Your task to perform on an android device: Search for the best vacuum on Amazon. Image 0: 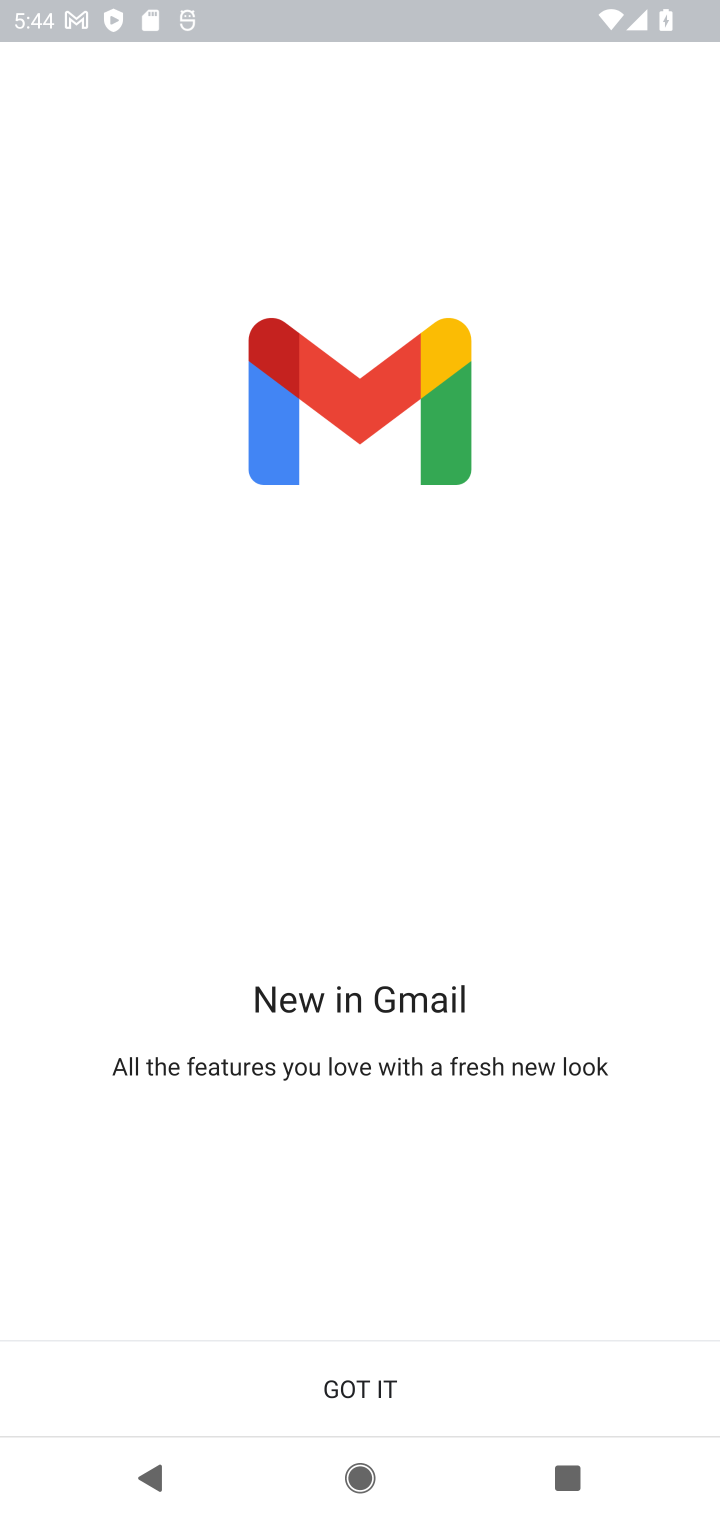
Step 0: press home button
Your task to perform on an android device: Search for the best vacuum on Amazon. Image 1: 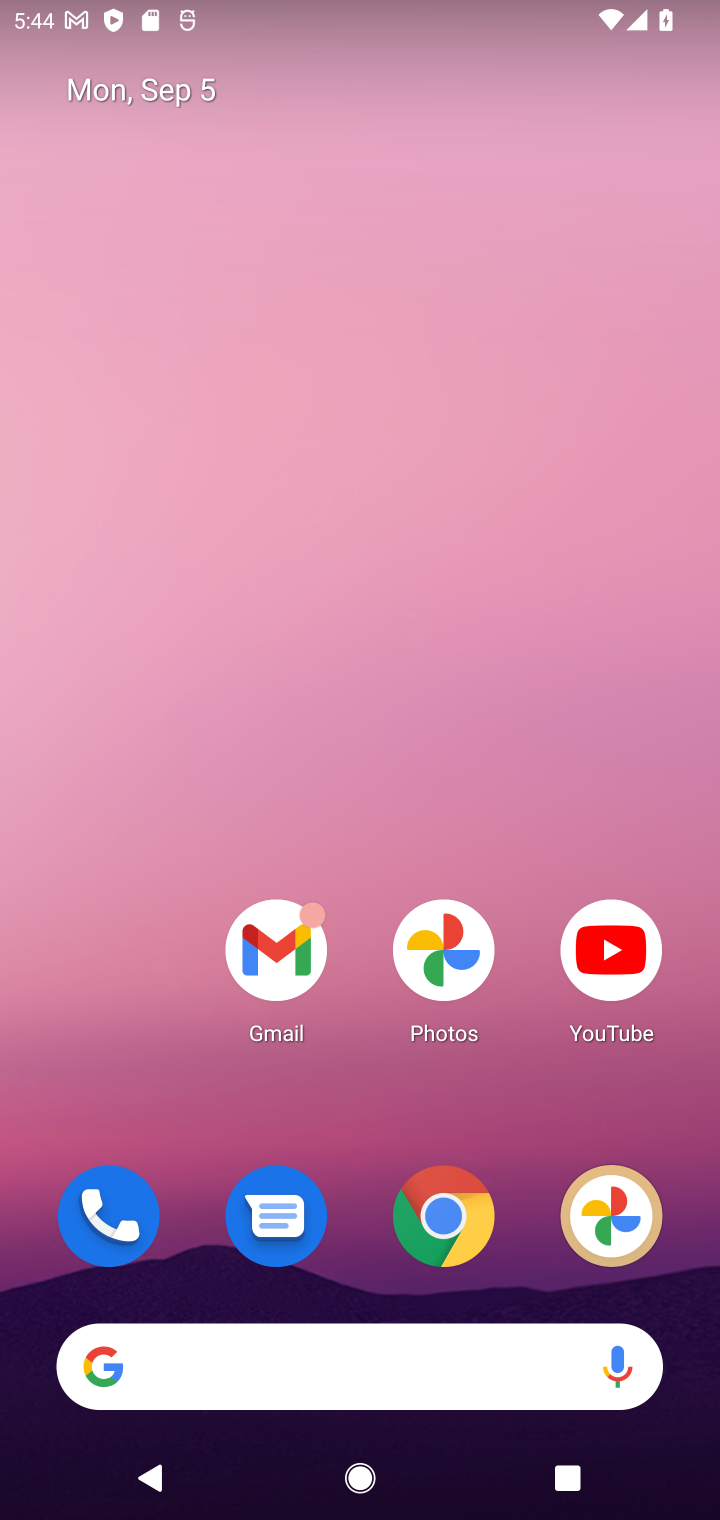
Step 1: click (463, 1200)
Your task to perform on an android device: Search for the best vacuum on Amazon. Image 2: 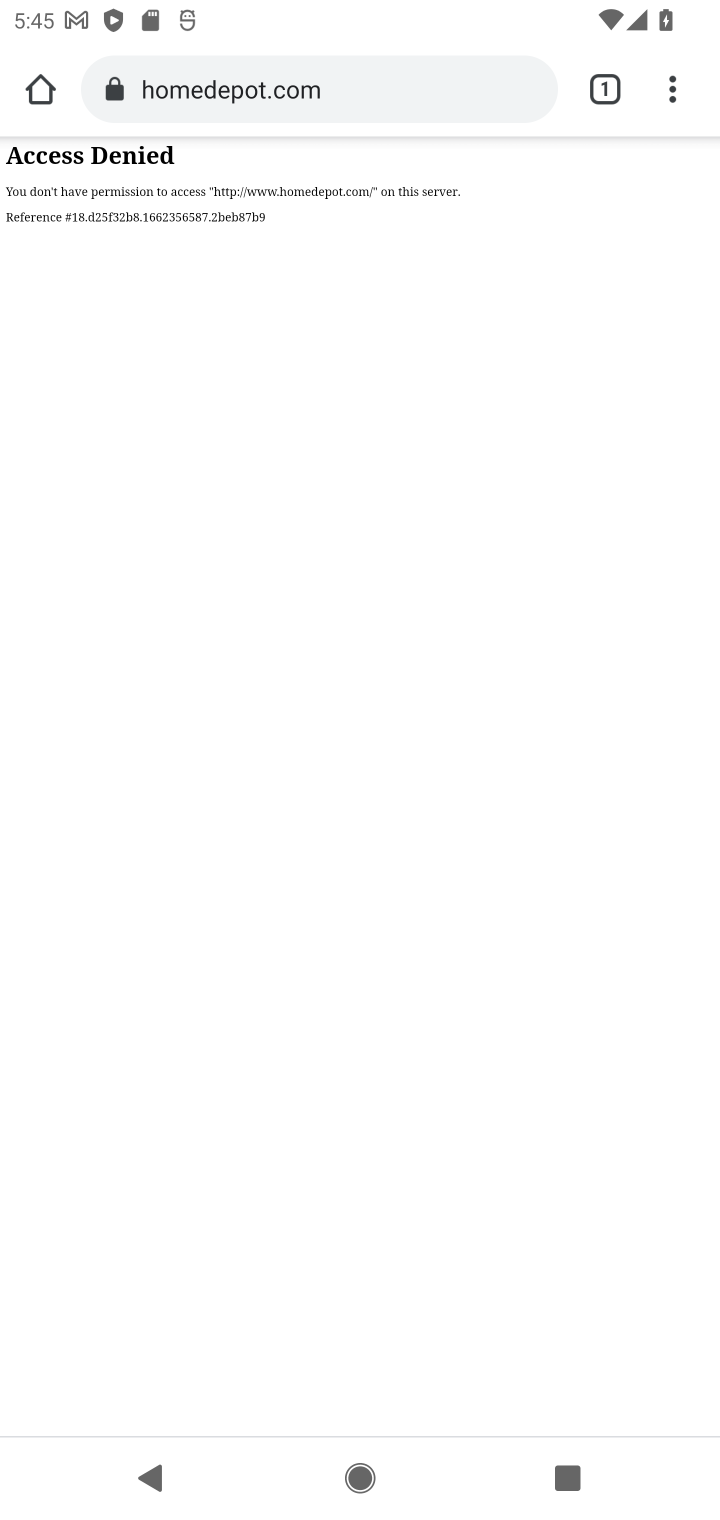
Step 2: click (340, 92)
Your task to perform on an android device: Search for the best vacuum on Amazon. Image 3: 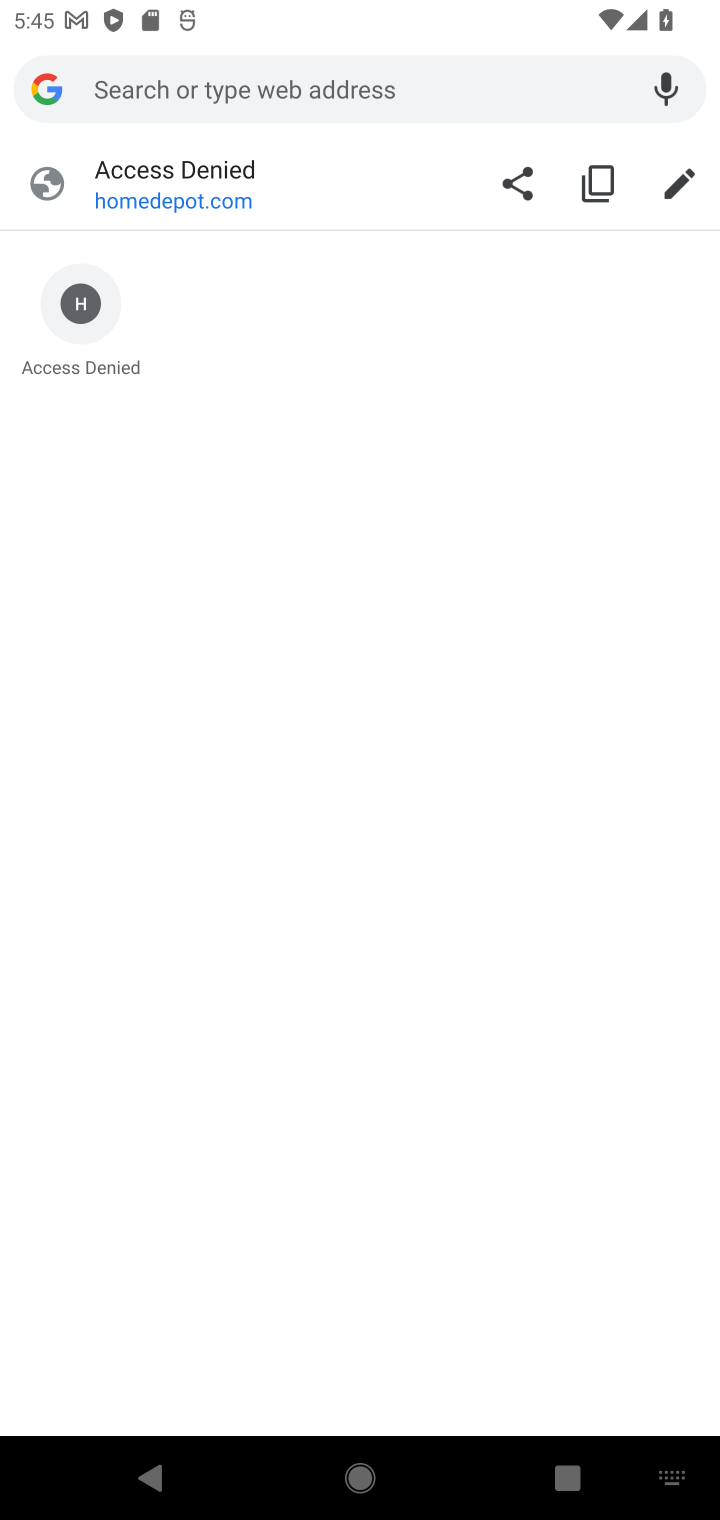
Step 3: type "amazon"
Your task to perform on an android device: Search for the best vacuum on Amazon. Image 4: 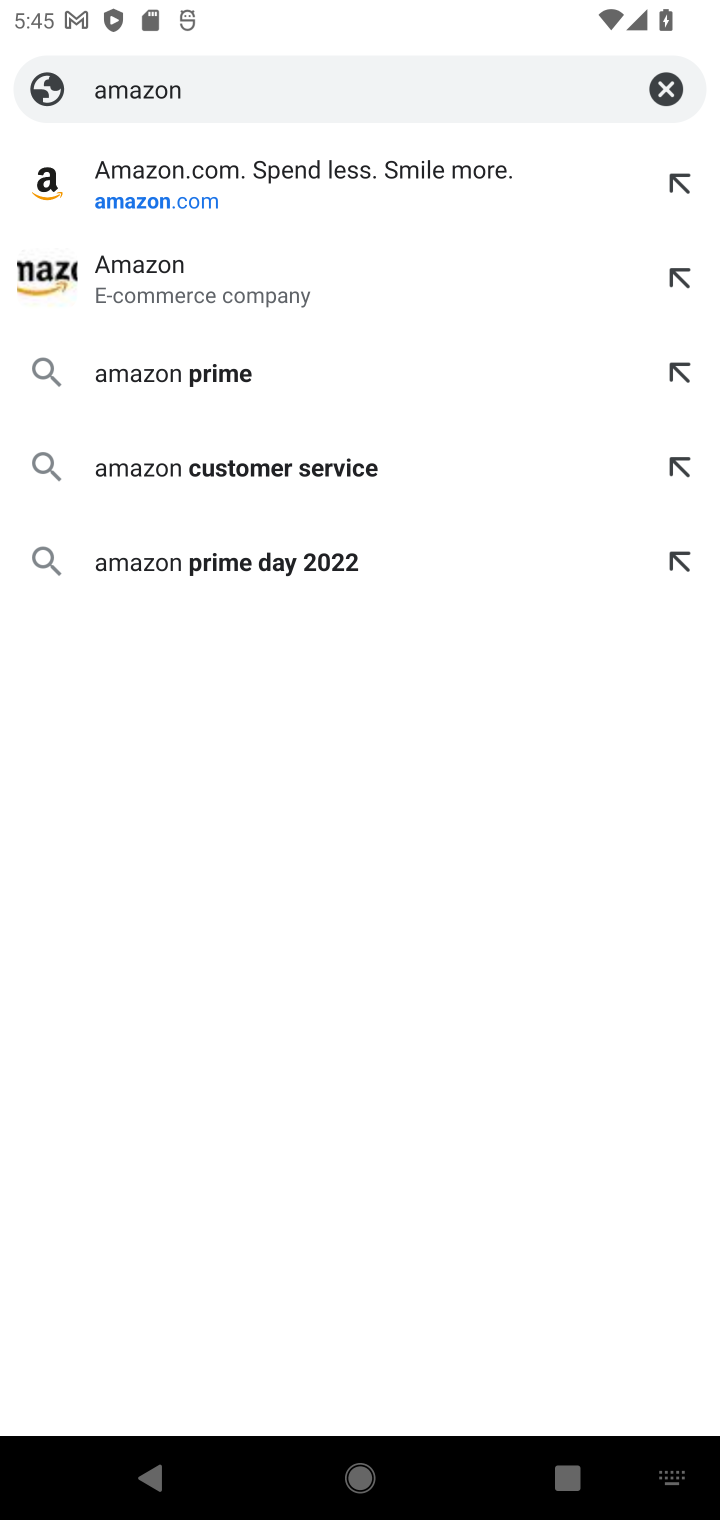
Step 4: click (395, 167)
Your task to perform on an android device: Search for the best vacuum on Amazon. Image 5: 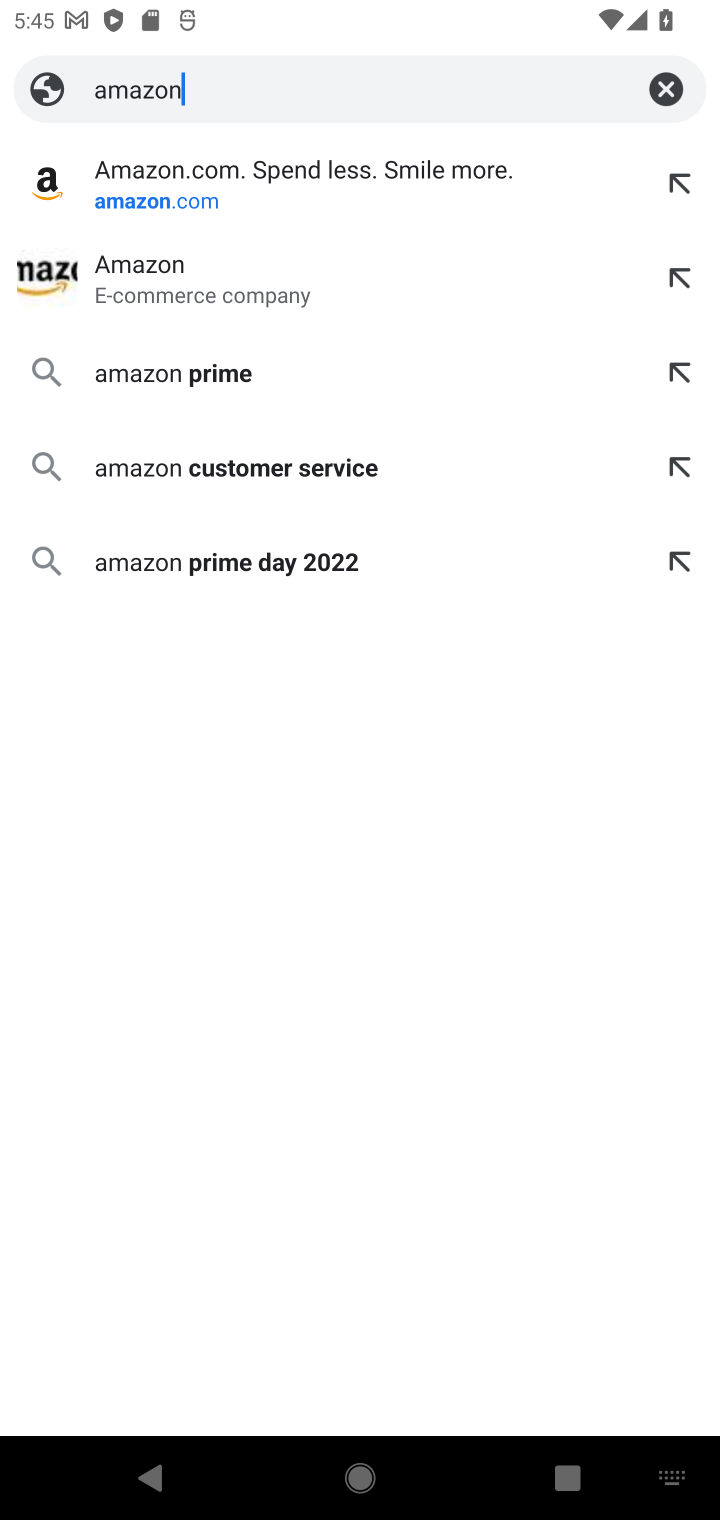
Step 5: click (204, 197)
Your task to perform on an android device: Search for the best vacuum on Amazon. Image 6: 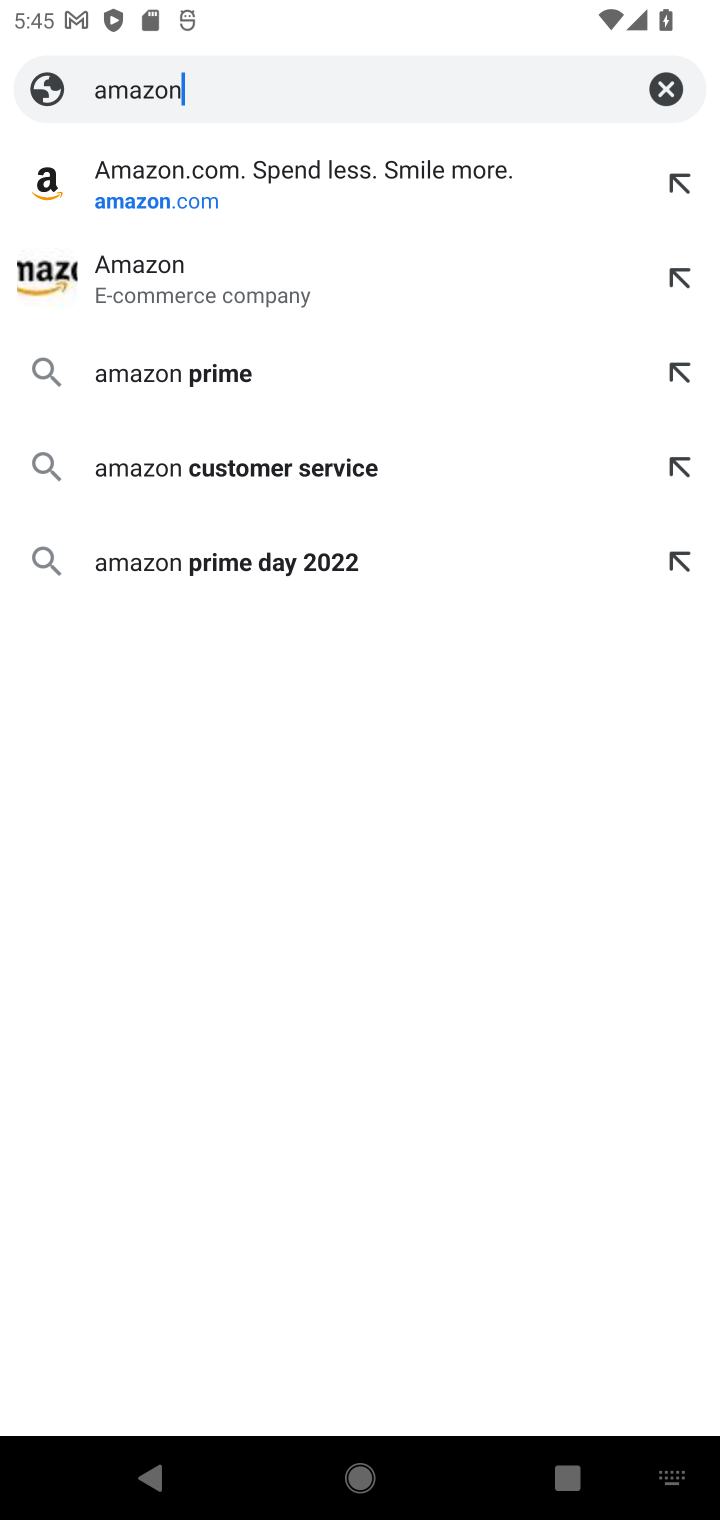
Step 6: click (258, 199)
Your task to perform on an android device: Search for the best vacuum on Amazon. Image 7: 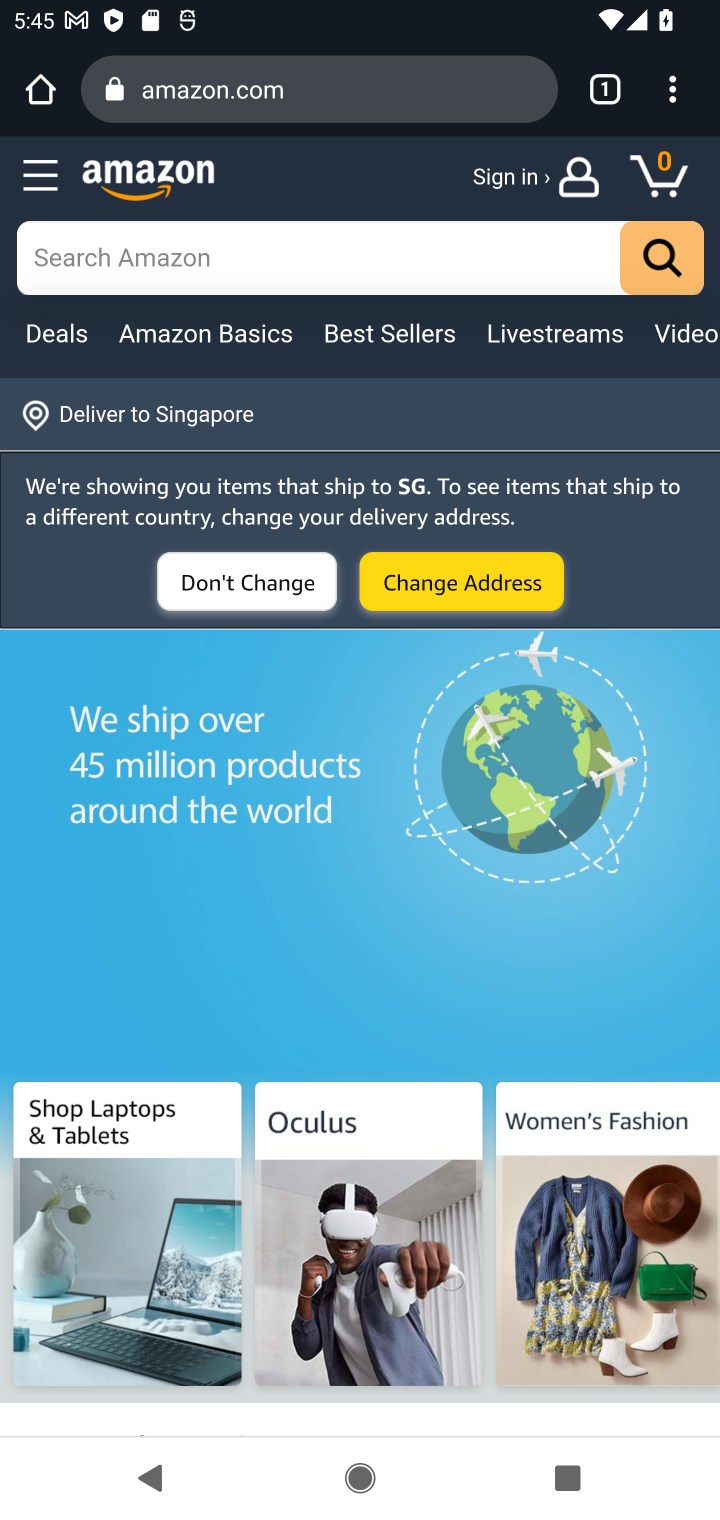
Step 7: click (410, 259)
Your task to perform on an android device: Search for the best vacuum on Amazon. Image 8: 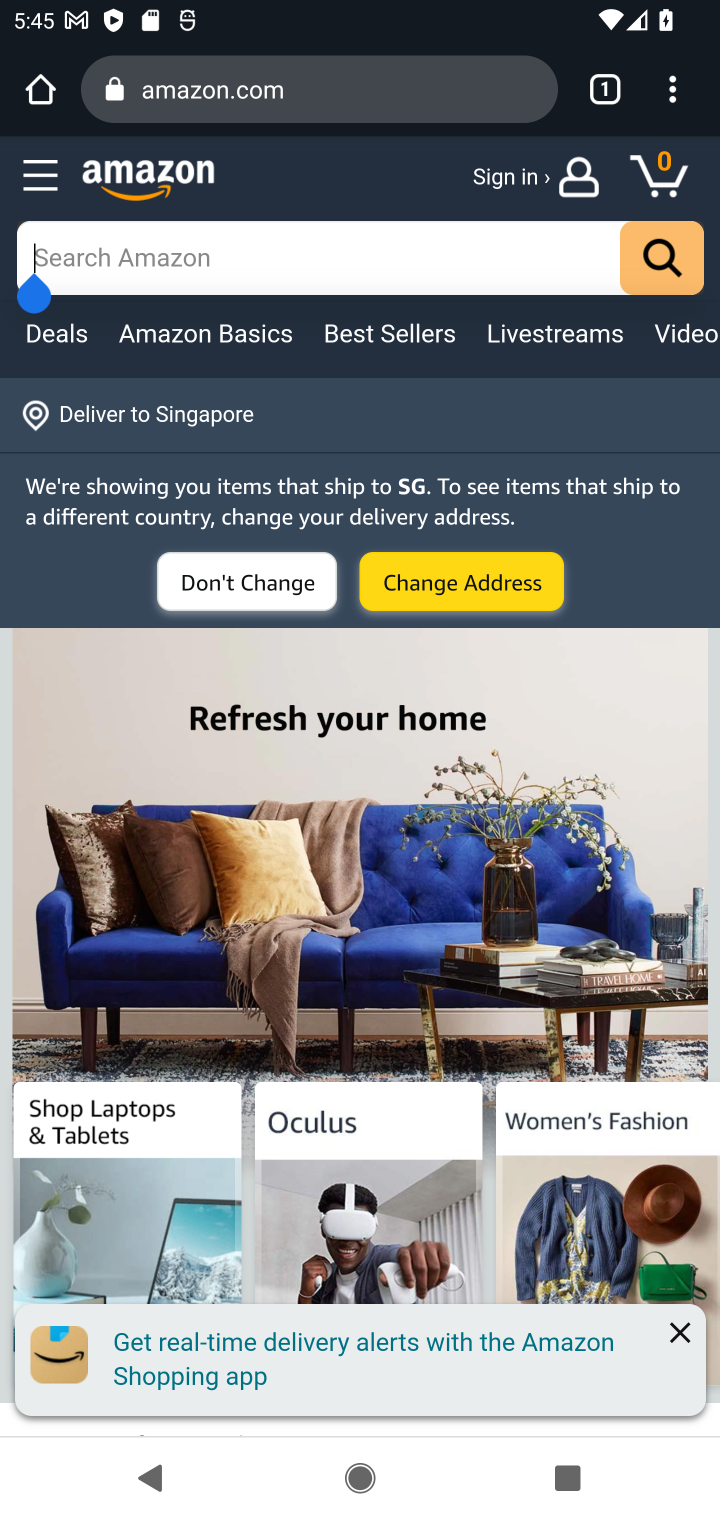
Step 8: type "best vaccum"
Your task to perform on an android device: Search for the best vacuum on Amazon. Image 9: 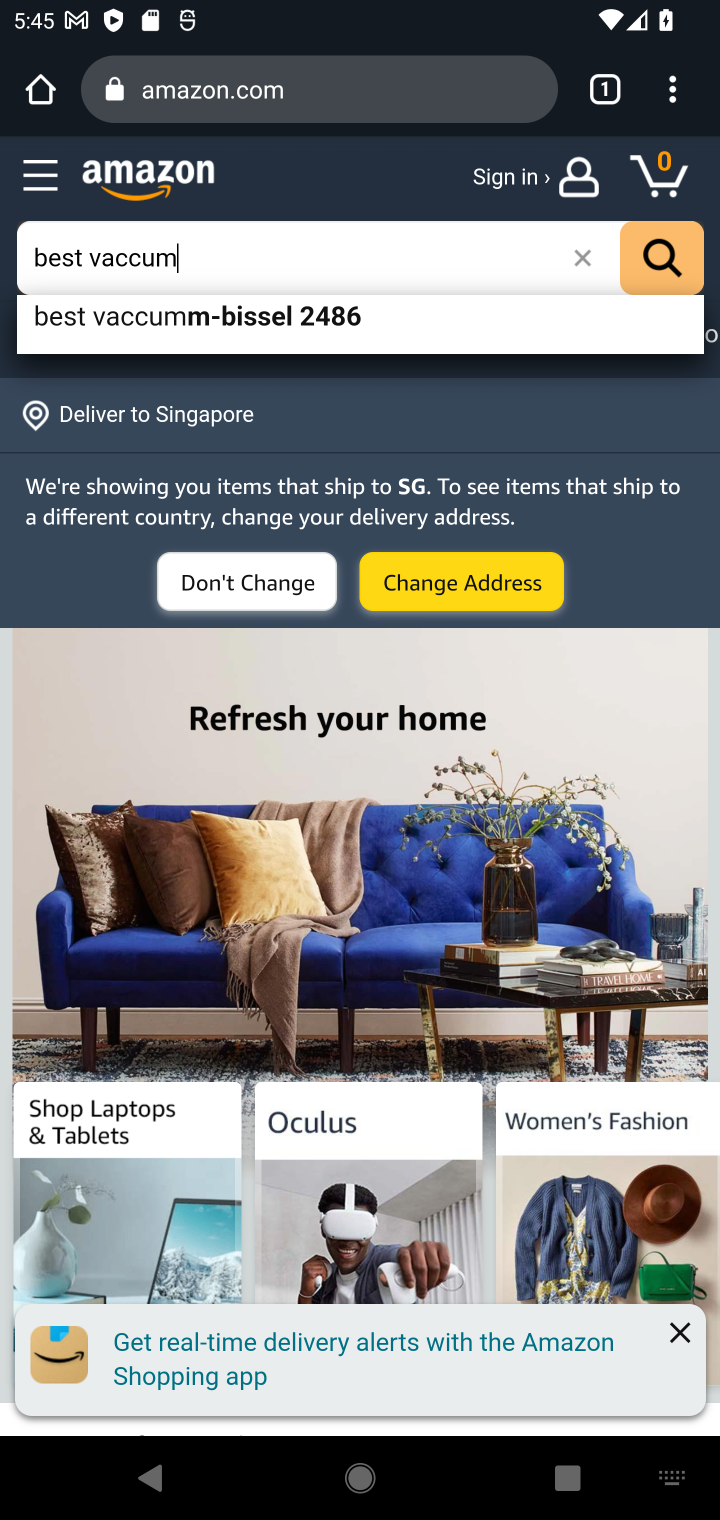
Step 9: click (677, 250)
Your task to perform on an android device: Search for the best vacuum on Amazon. Image 10: 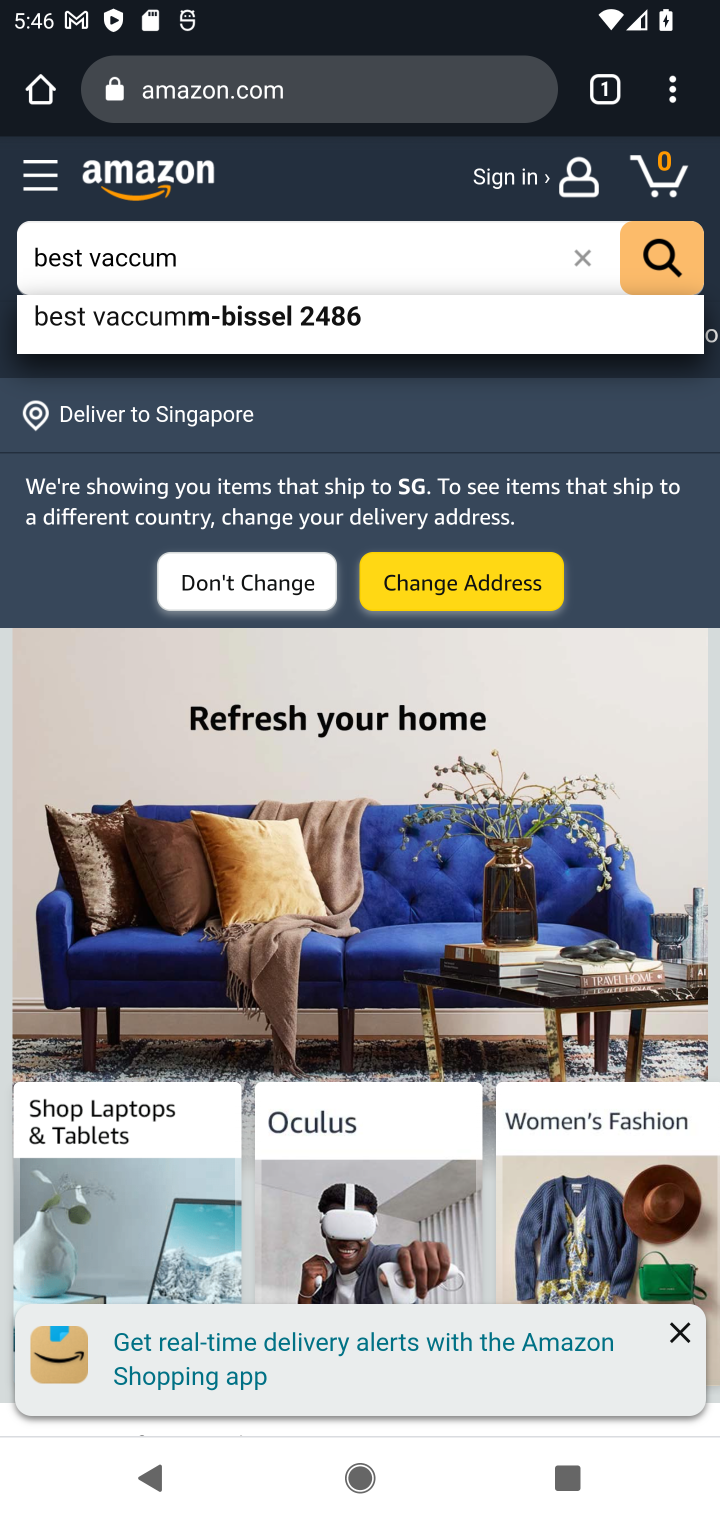
Step 10: click (677, 250)
Your task to perform on an android device: Search for the best vacuum on Amazon. Image 11: 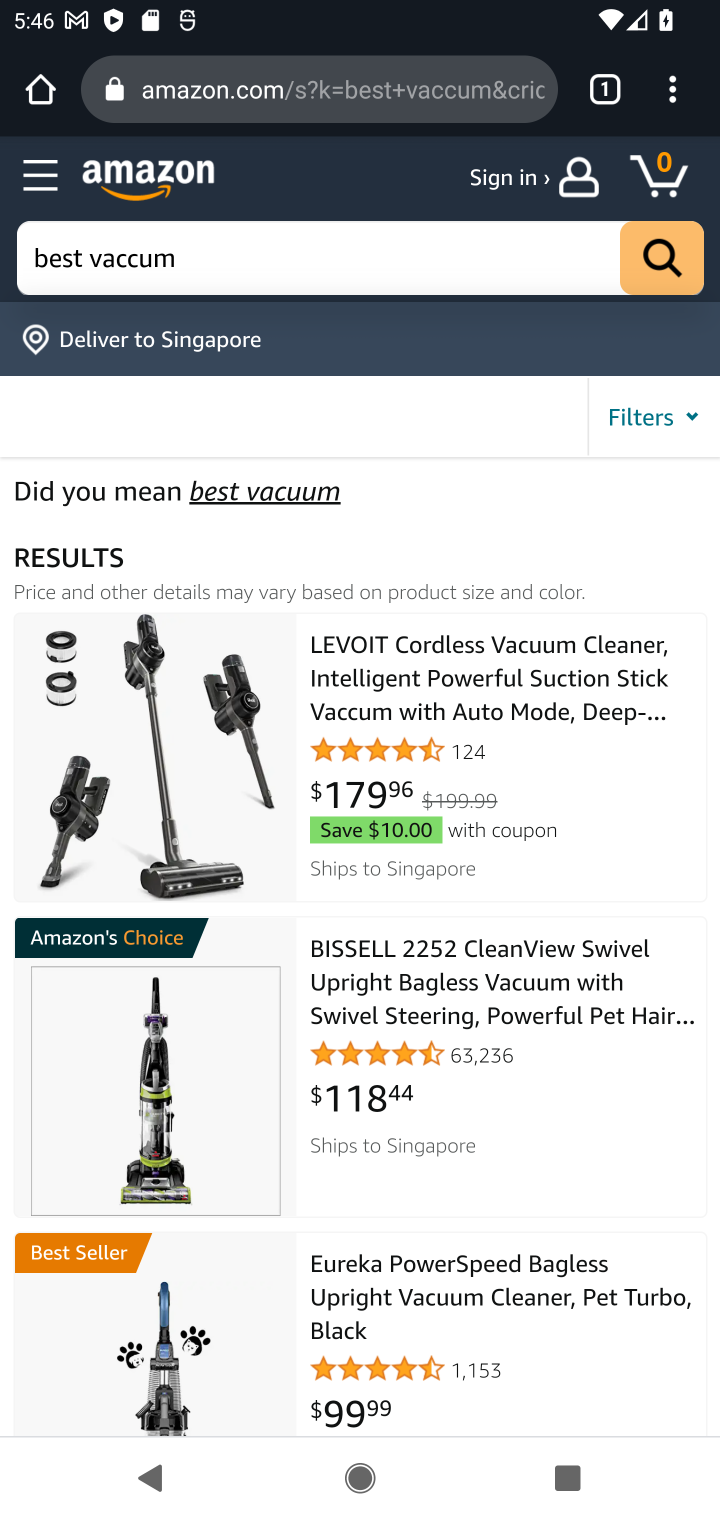
Step 11: task complete